Your task to perform on an android device: What's the weather going to be this weekend? Image 0: 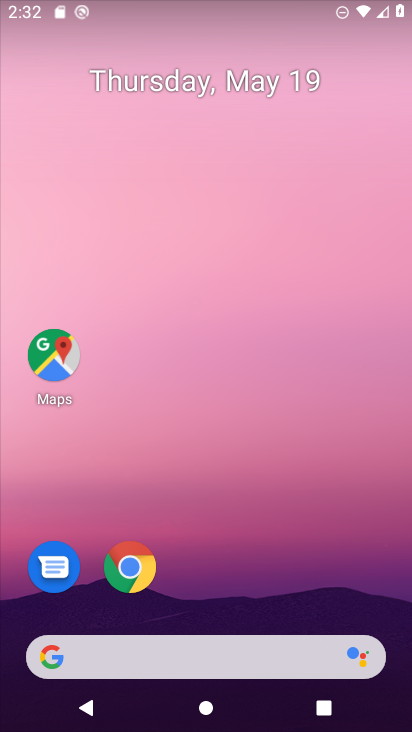
Step 0: click (220, 654)
Your task to perform on an android device: What's the weather going to be this weekend? Image 1: 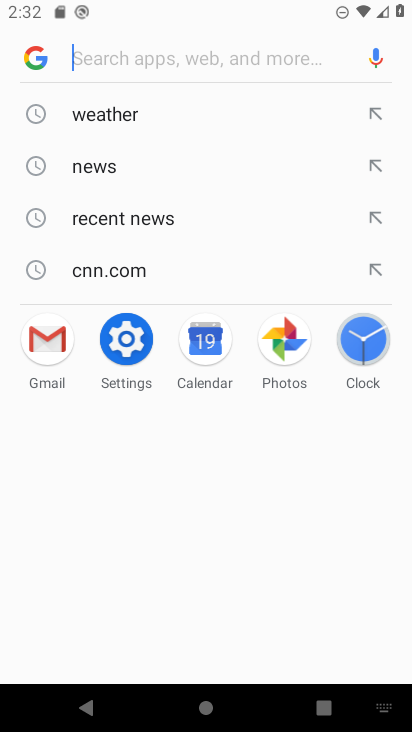
Step 1: click (89, 115)
Your task to perform on an android device: What's the weather going to be this weekend? Image 2: 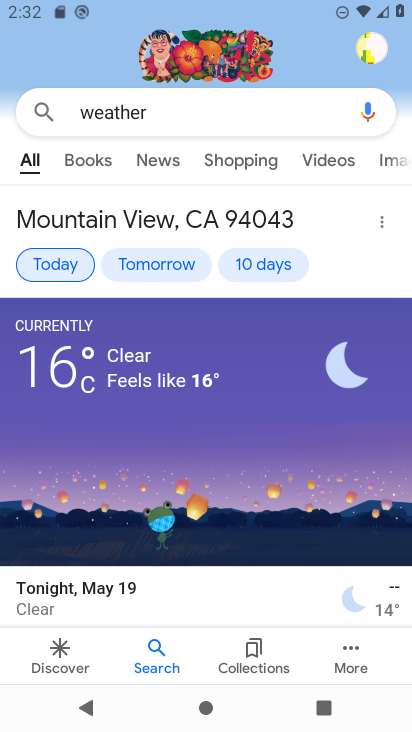
Step 2: click (74, 257)
Your task to perform on an android device: What's the weather going to be this weekend? Image 3: 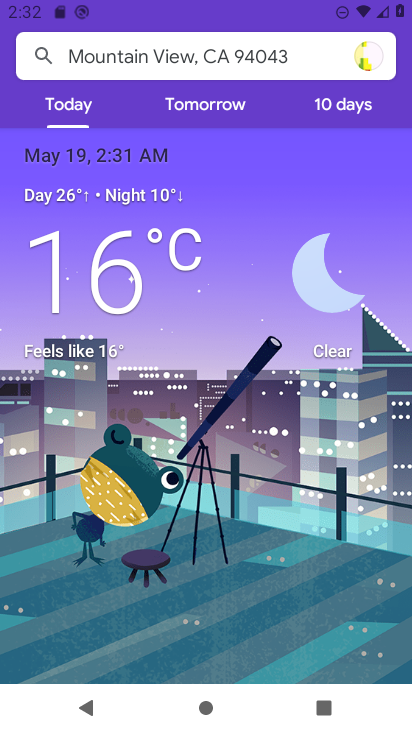
Step 3: click (346, 102)
Your task to perform on an android device: What's the weather going to be this weekend? Image 4: 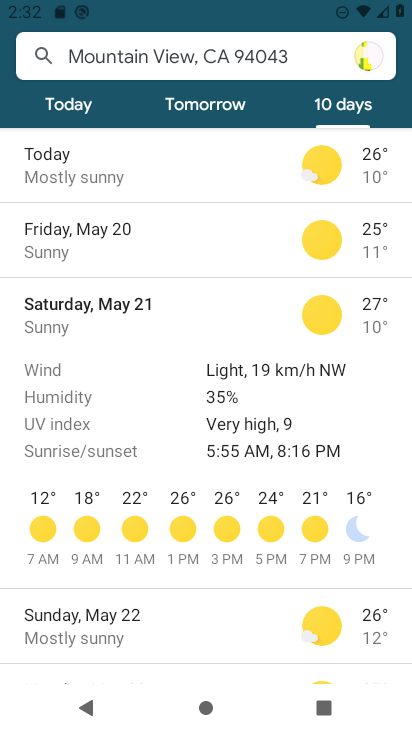
Step 4: task complete